Your task to perform on an android device: change notifications settings Image 0: 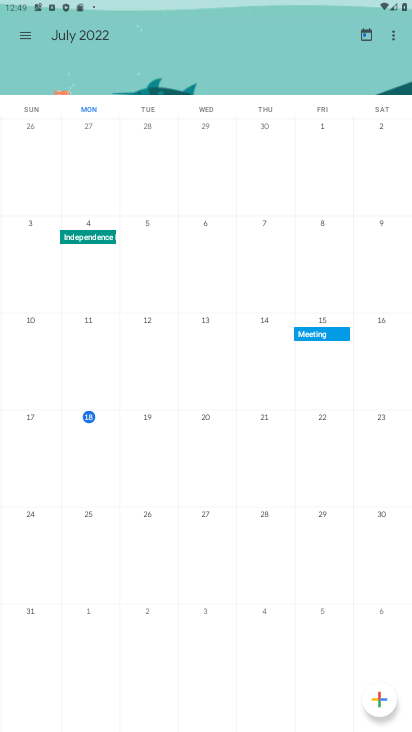
Step 0: press home button
Your task to perform on an android device: change notifications settings Image 1: 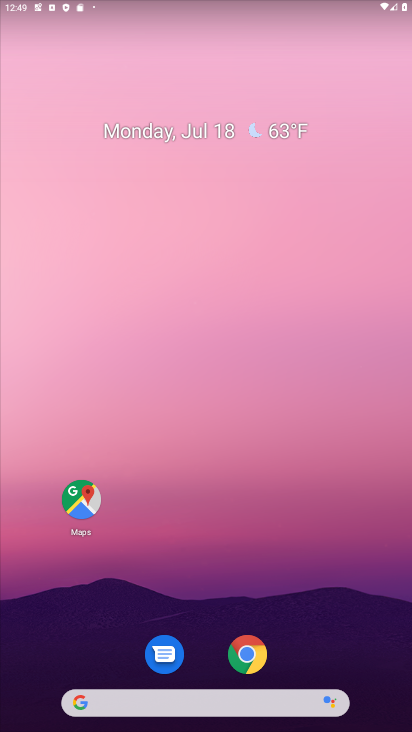
Step 1: drag from (196, 575) to (217, 263)
Your task to perform on an android device: change notifications settings Image 2: 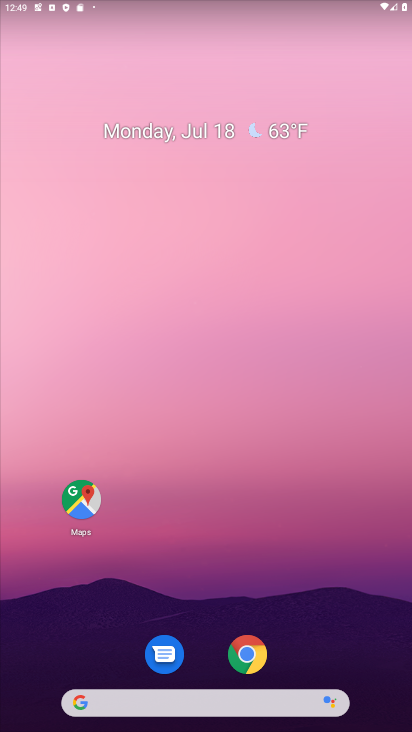
Step 2: drag from (223, 529) to (212, 115)
Your task to perform on an android device: change notifications settings Image 3: 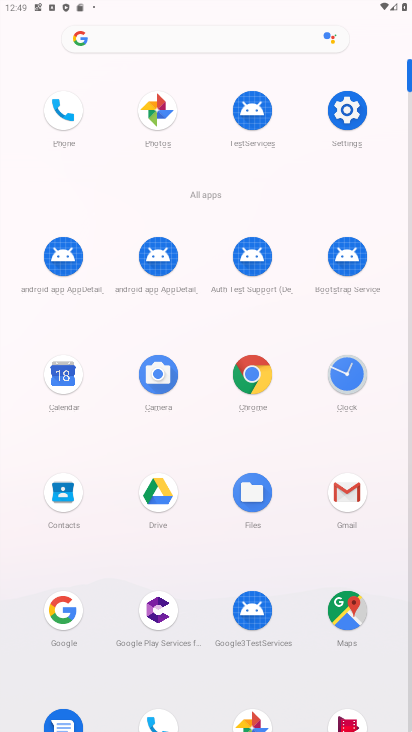
Step 3: click (352, 124)
Your task to perform on an android device: change notifications settings Image 4: 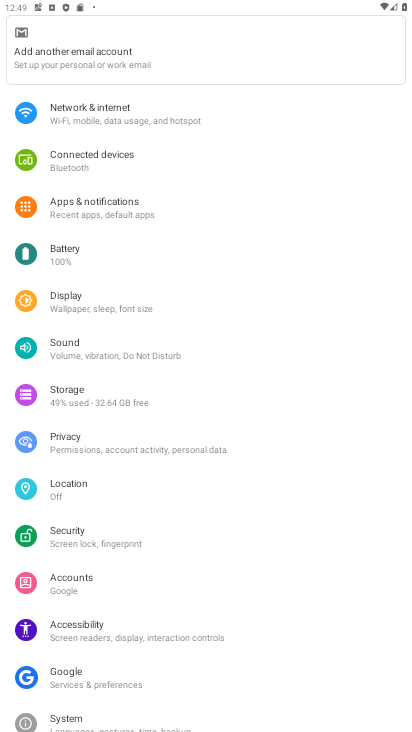
Step 4: drag from (176, 294) to (189, 529)
Your task to perform on an android device: change notifications settings Image 5: 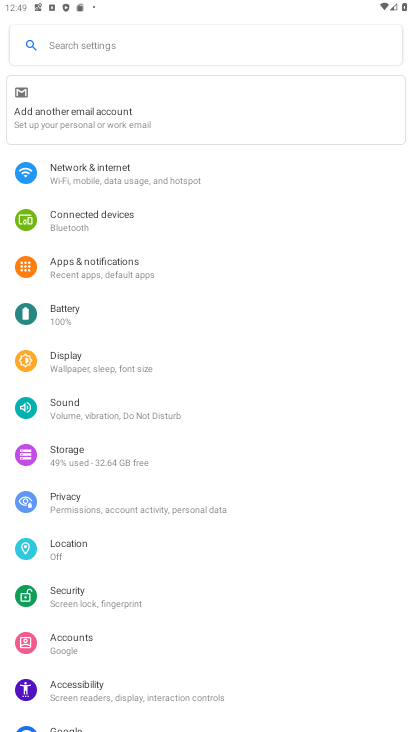
Step 5: click (172, 260)
Your task to perform on an android device: change notifications settings Image 6: 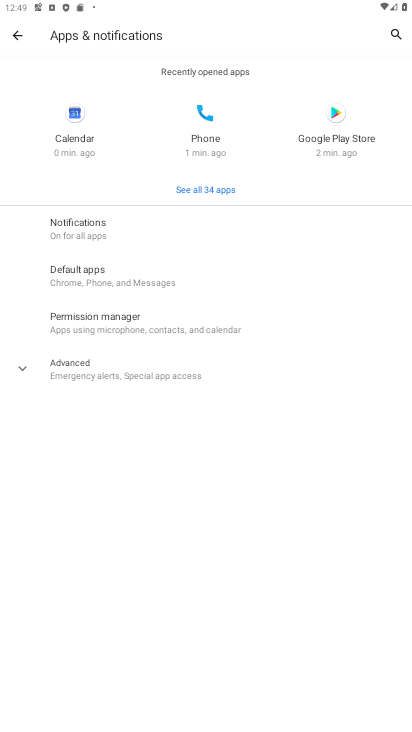
Step 6: click (132, 241)
Your task to perform on an android device: change notifications settings Image 7: 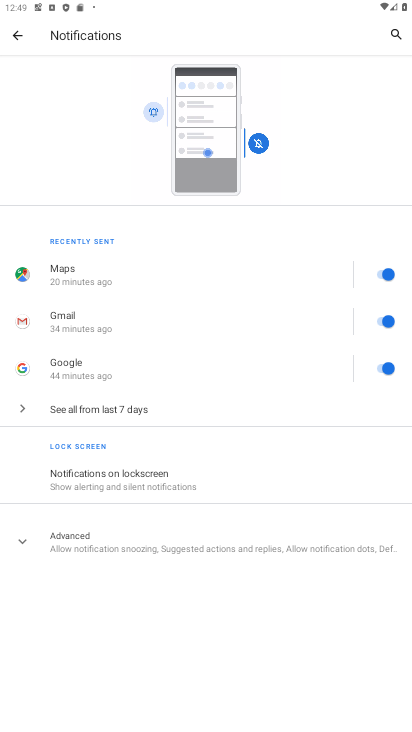
Step 7: click (153, 488)
Your task to perform on an android device: change notifications settings Image 8: 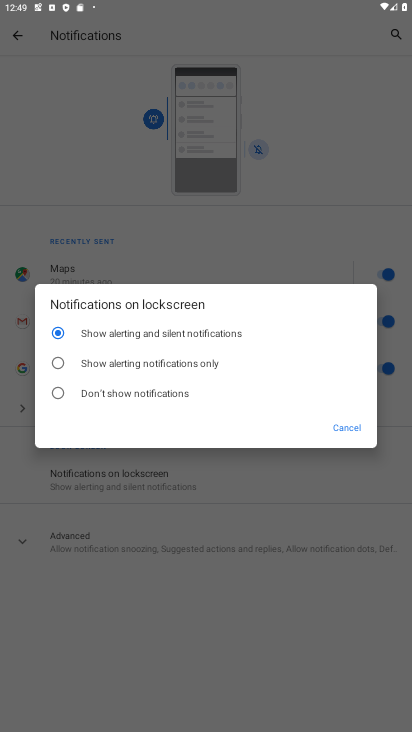
Step 8: click (167, 385)
Your task to perform on an android device: change notifications settings Image 9: 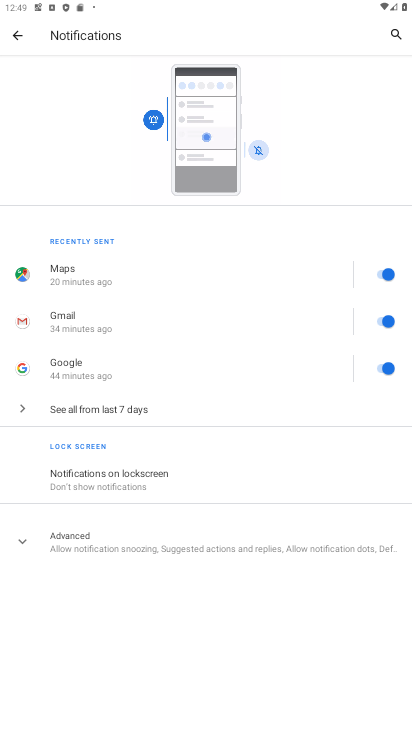
Step 9: task complete